Your task to perform on an android device: check storage Image 0: 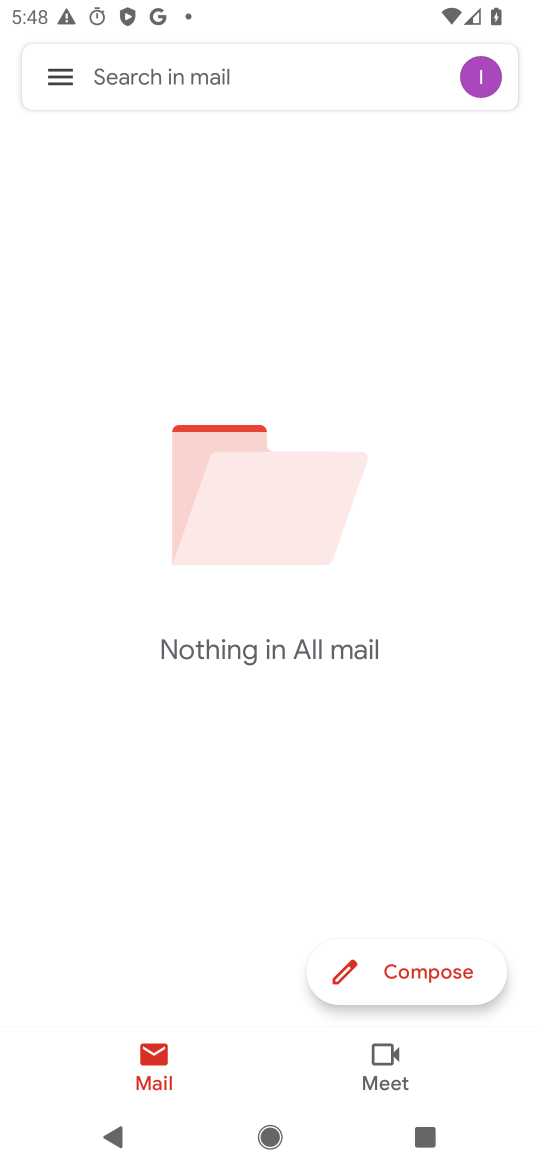
Step 0: press home button
Your task to perform on an android device: check storage Image 1: 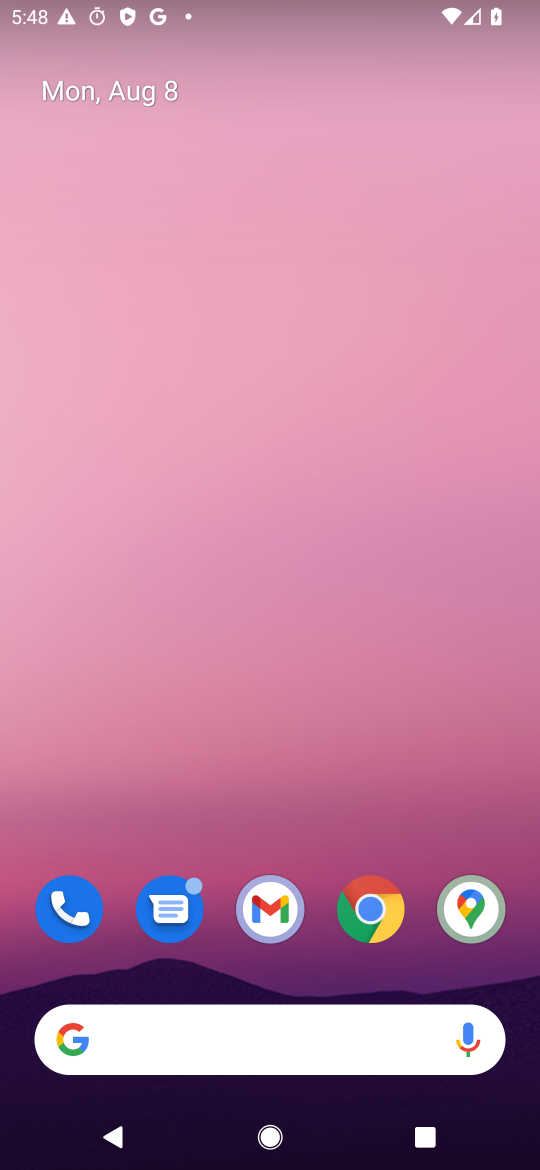
Step 1: drag from (304, 926) to (409, 93)
Your task to perform on an android device: check storage Image 2: 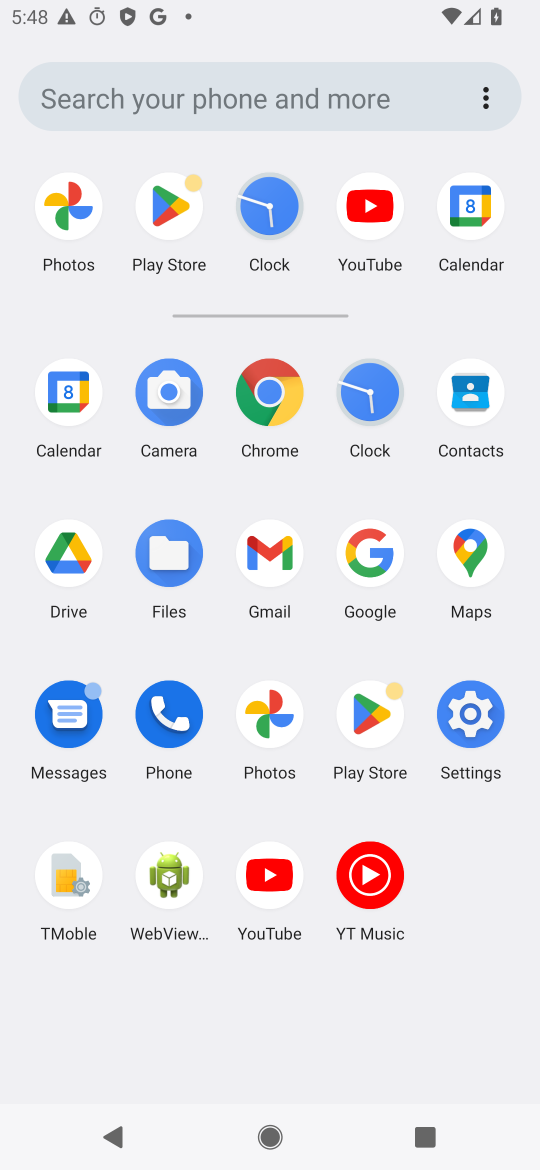
Step 2: click (470, 714)
Your task to perform on an android device: check storage Image 3: 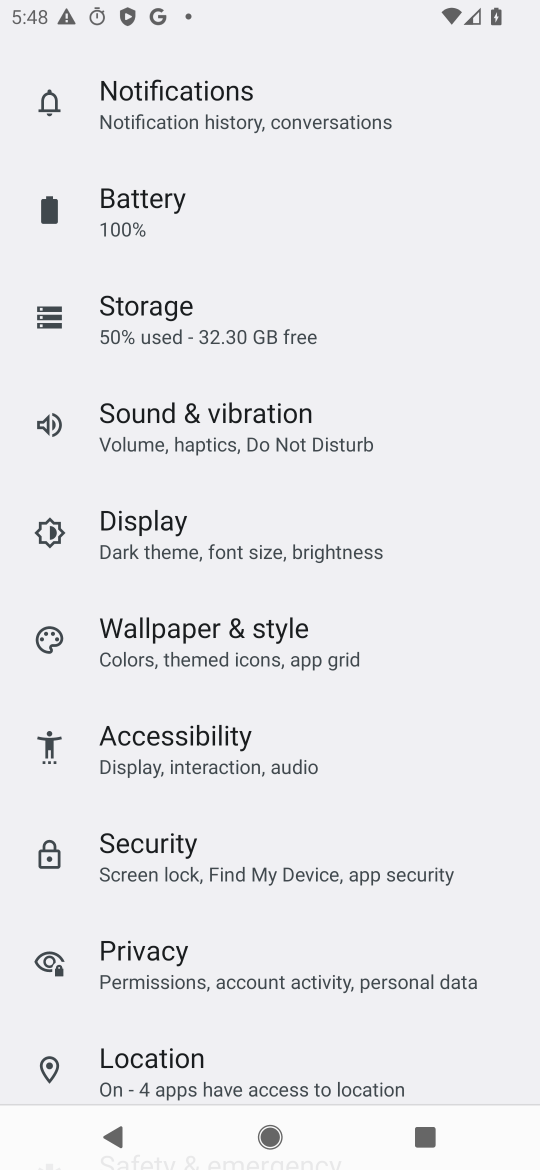
Step 3: click (177, 313)
Your task to perform on an android device: check storage Image 4: 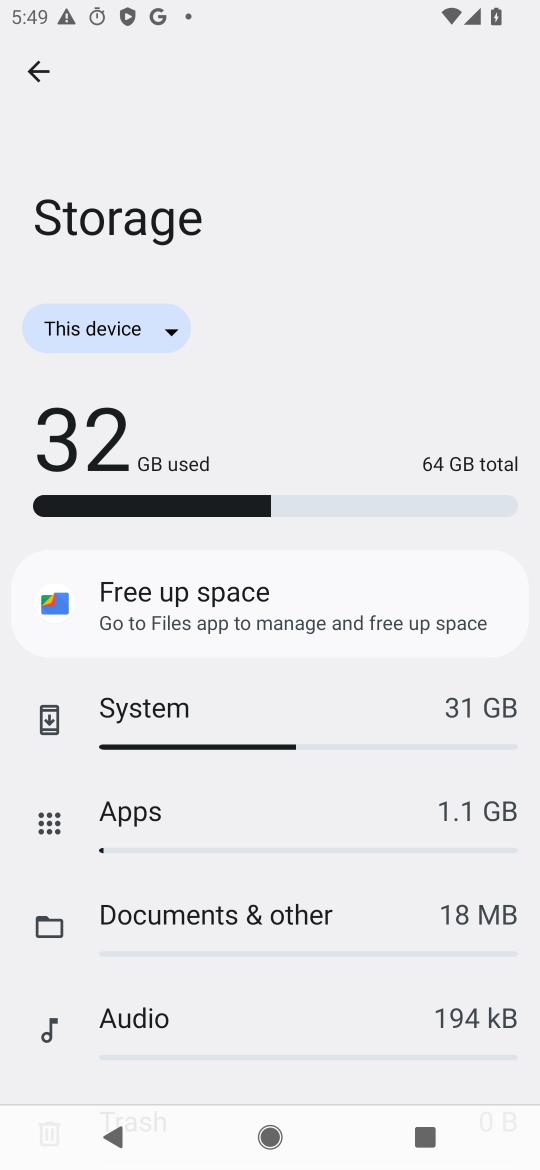
Step 4: task complete